Your task to perform on an android device: Do I have any events this weekend? Image 0: 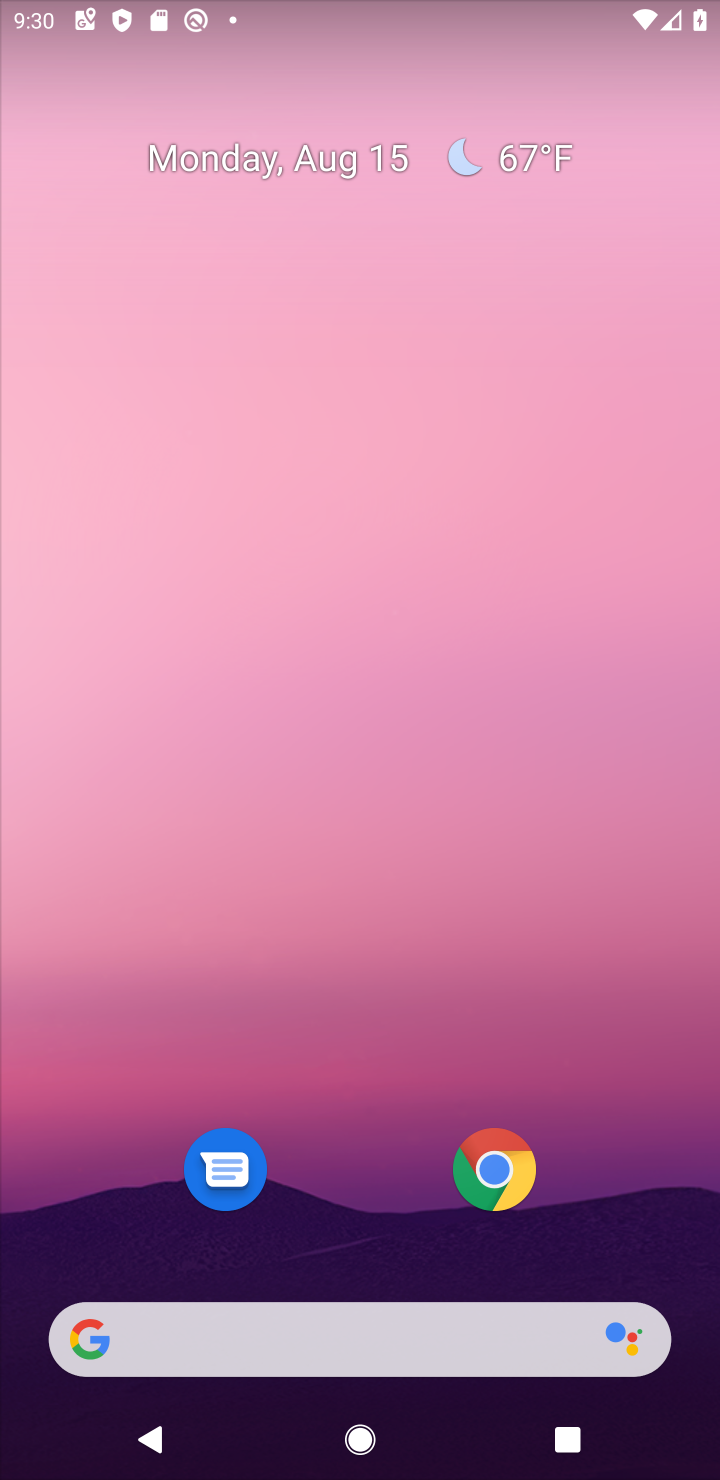
Step 0: drag from (275, 1231) to (606, 113)
Your task to perform on an android device: Do I have any events this weekend? Image 1: 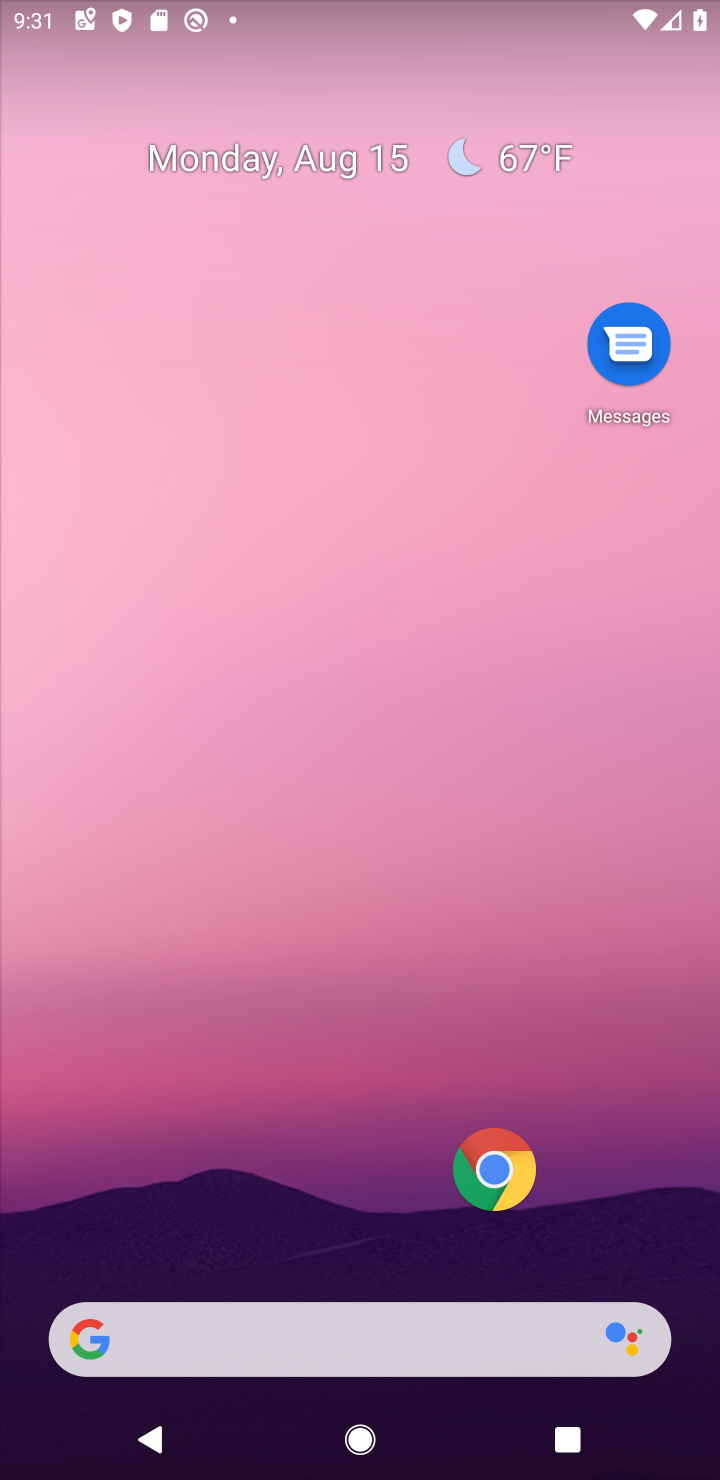
Step 1: drag from (621, 340) to (102, 1233)
Your task to perform on an android device: Do I have any events this weekend? Image 2: 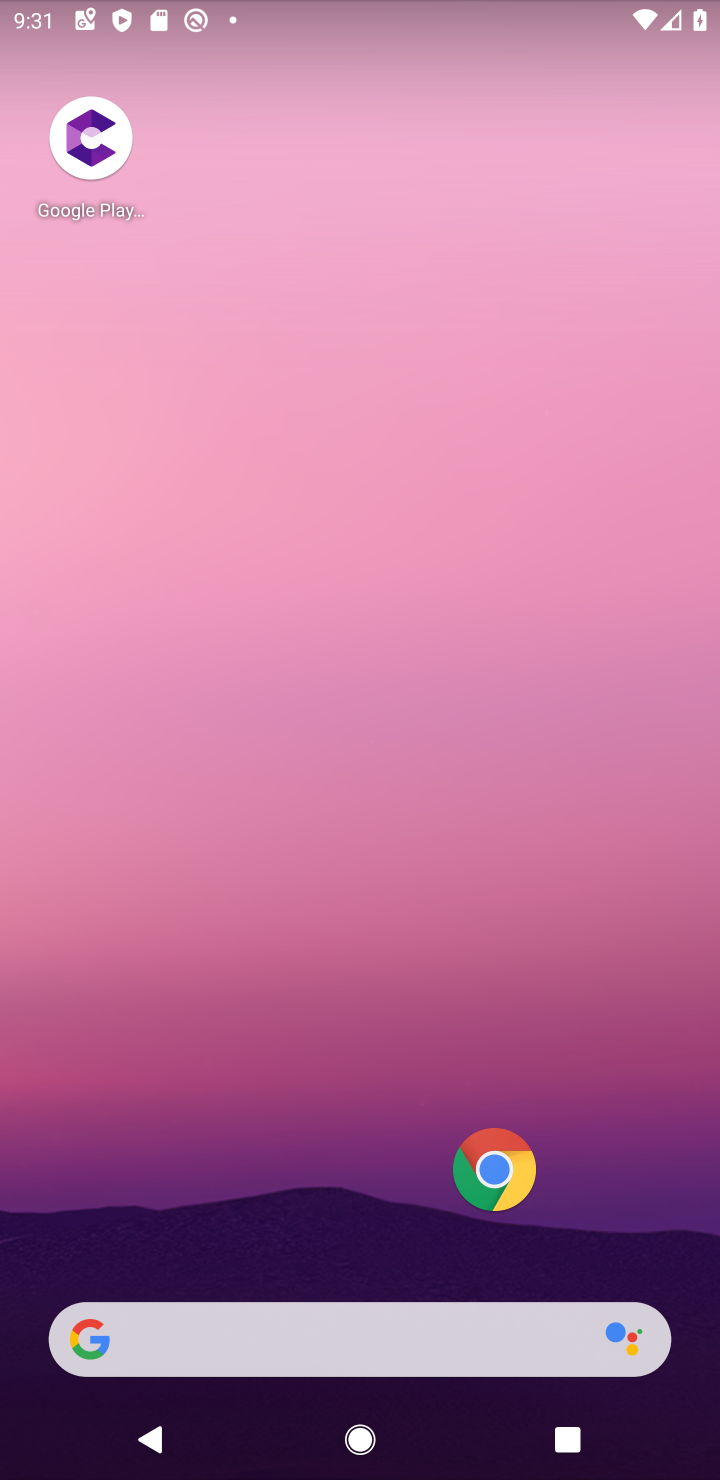
Step 2: drag from (331, 1341) to (542, 355)
Your task to perform on an android device: Do I have any events this weekend? Image 3: 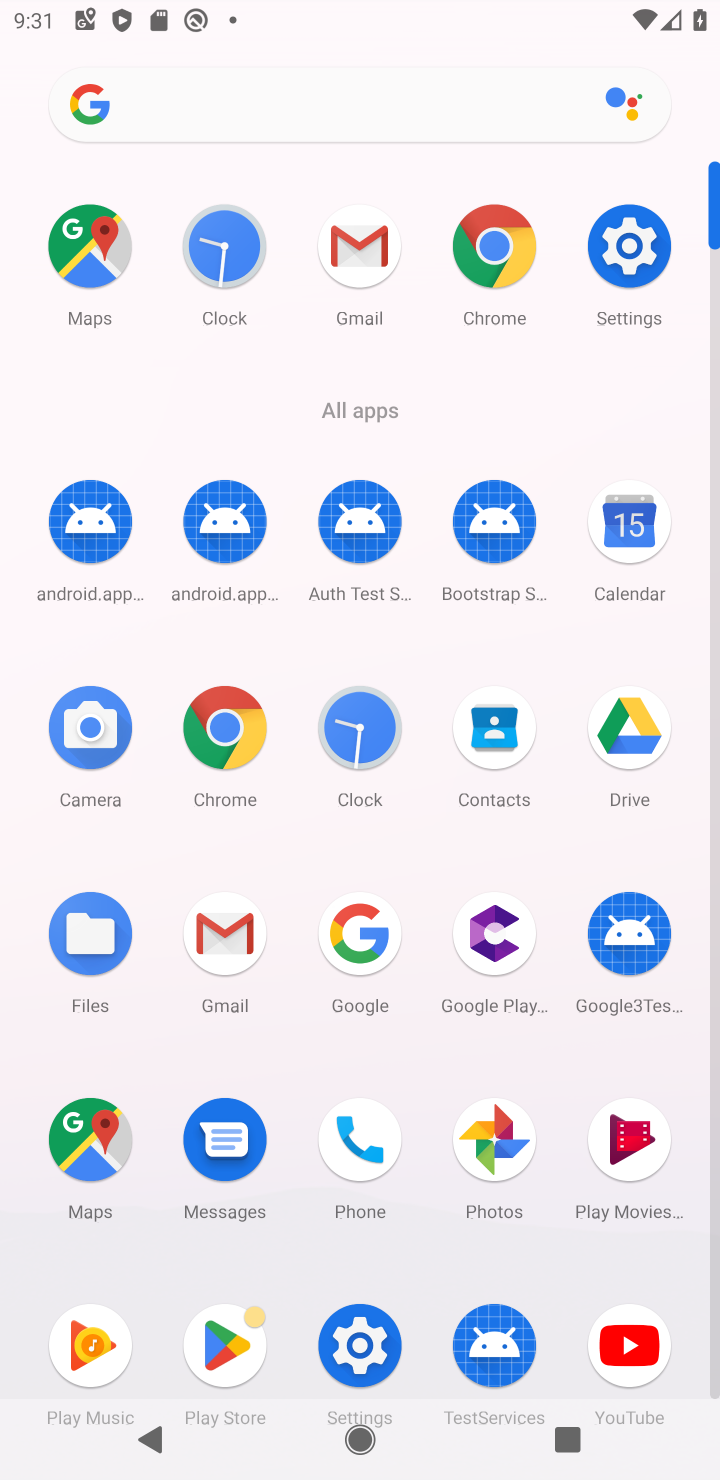
Step 3: click (621, 531)
Your task to perform on an android device: Do I have any events this weekend? Image 4: 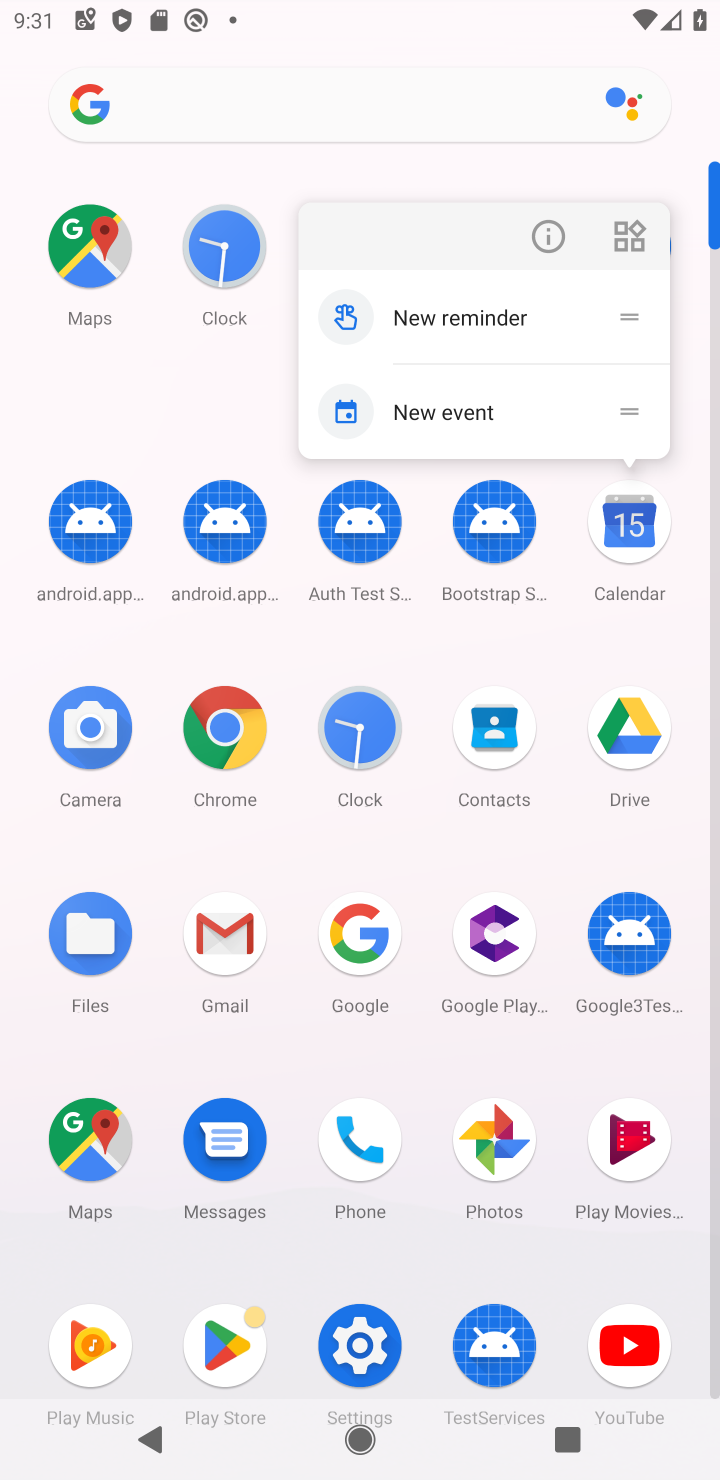
Step 4: click (621, 517)
Your task to perform on an android device: Do I have any events this weekend? Image 5: 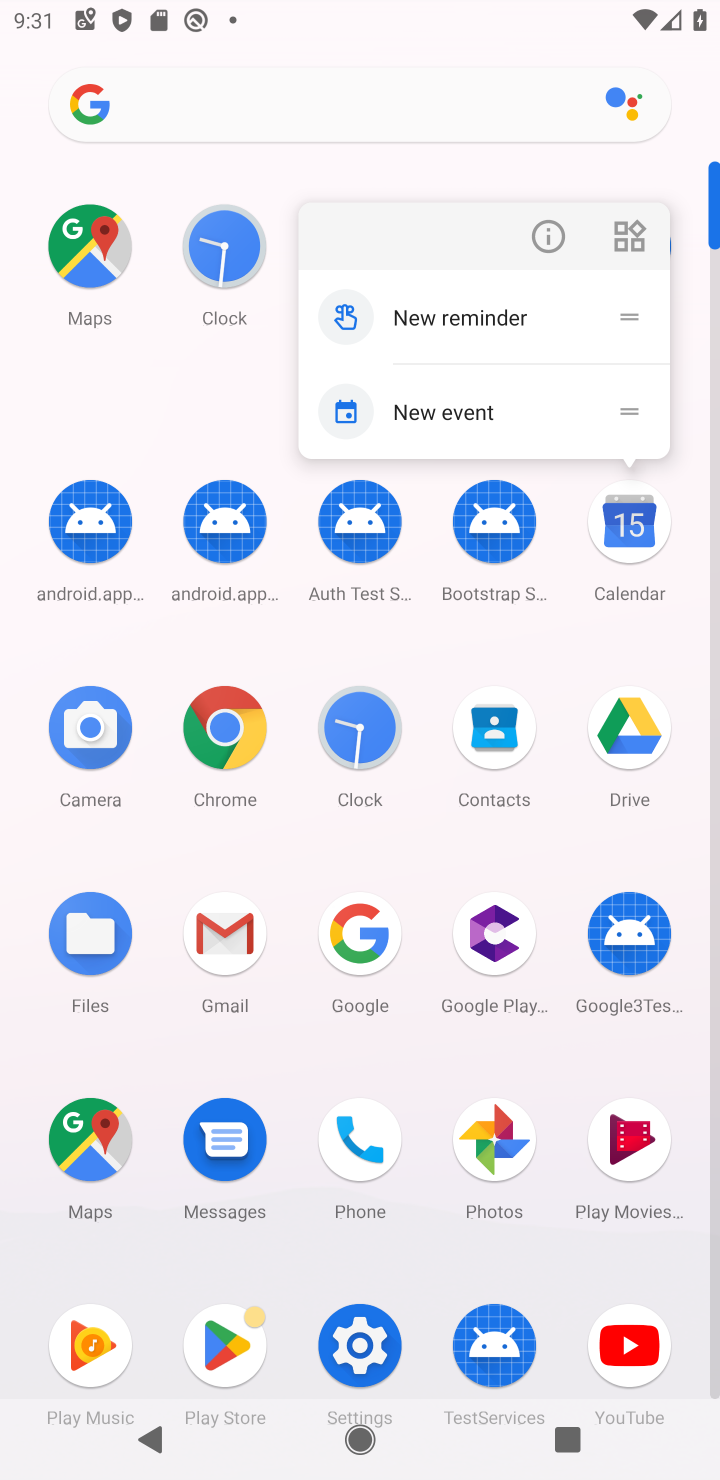
Step 5: click (621, 519)
Your task to perform on an android device: Do I have any events this weekend? Image 6: 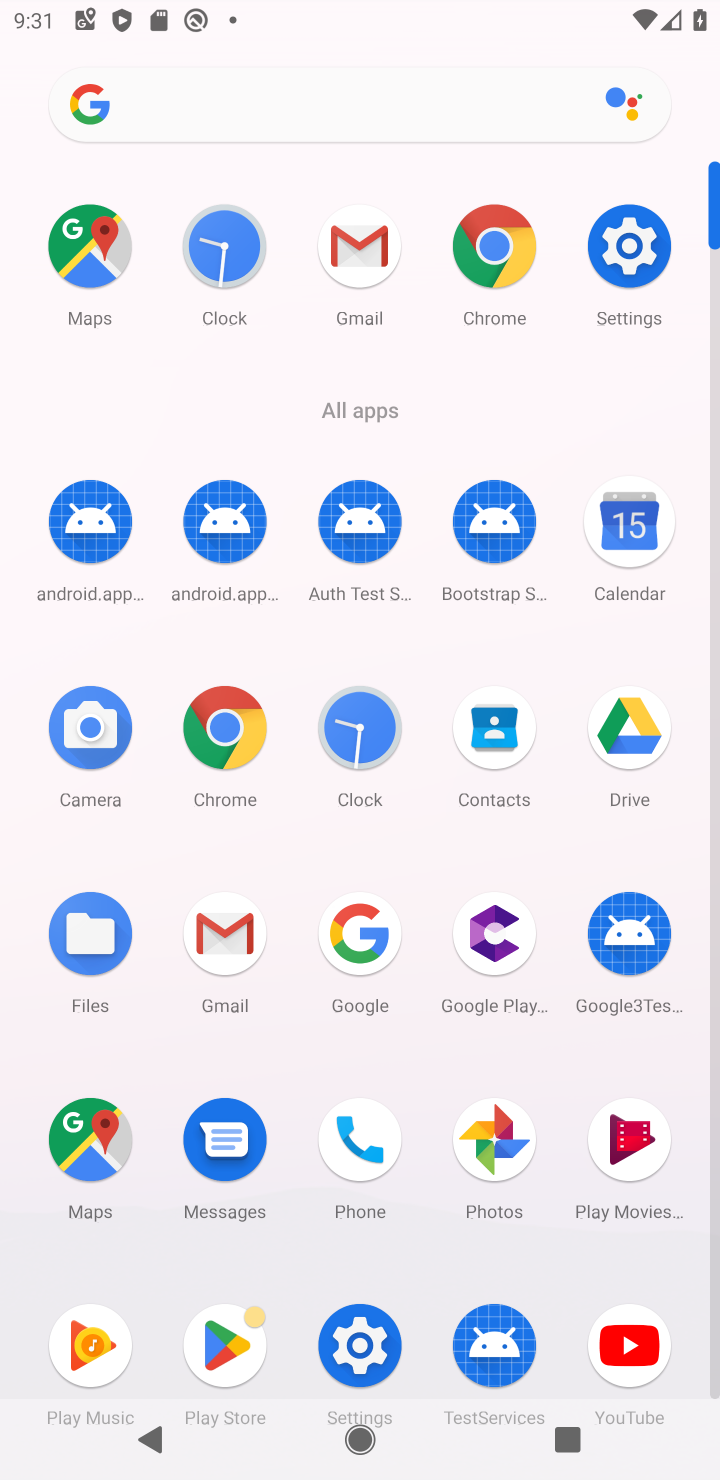
Step 6: click (621, 519)
Your task to perform on an android device: Do I have any events this weekend? Image 7: 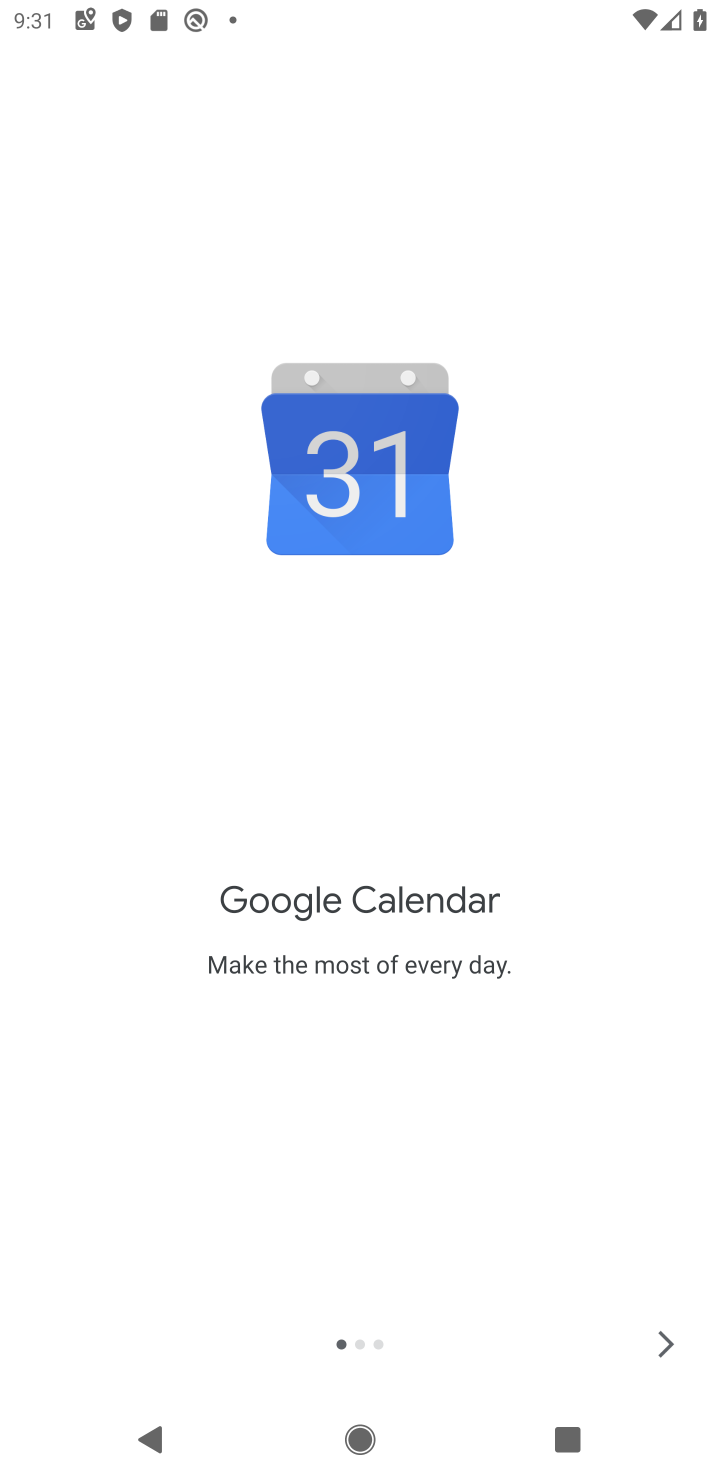
Step 7: click (663, 1330)
Your task to perform on an android device: Do I have any events this weekend? Image 8: 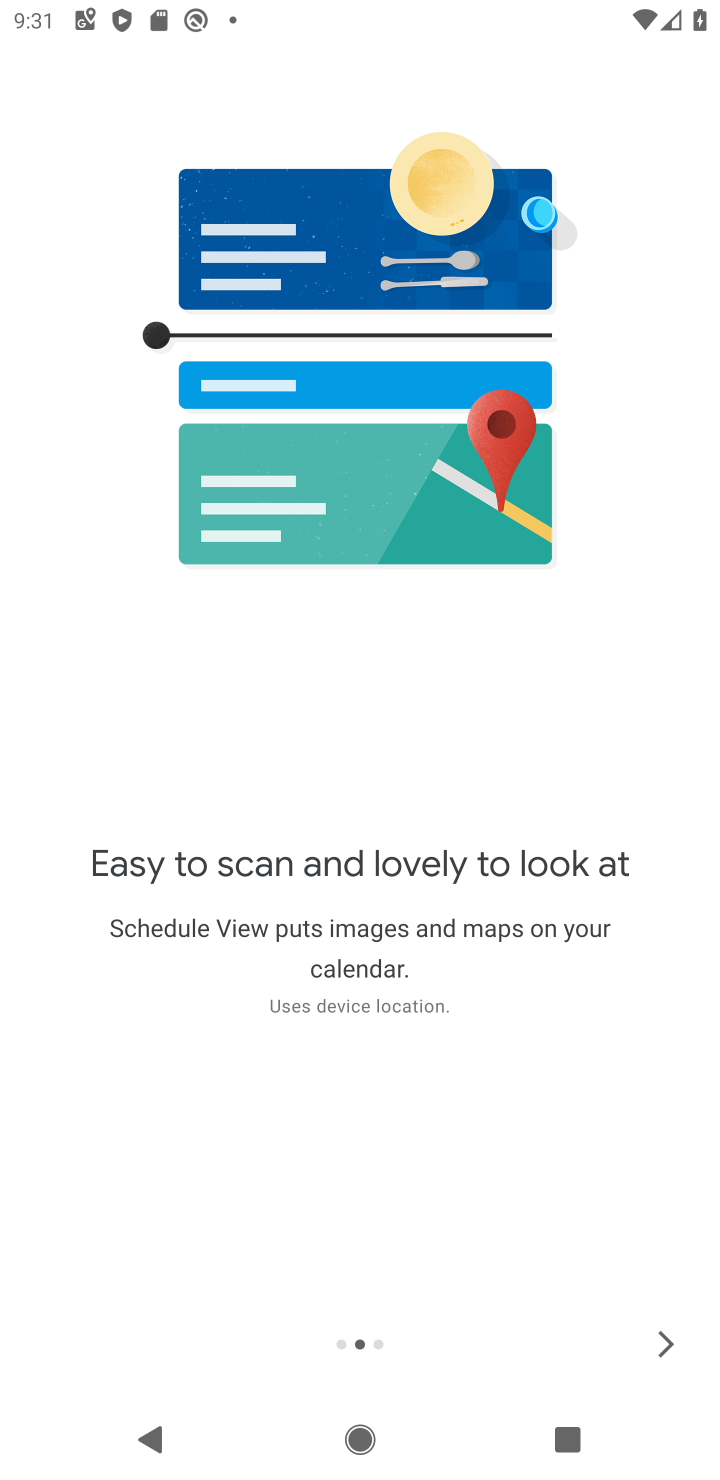
Step 8: click (663, 1328)
Your task to perform on an android device: Do I have any events this weekend? Image 9: 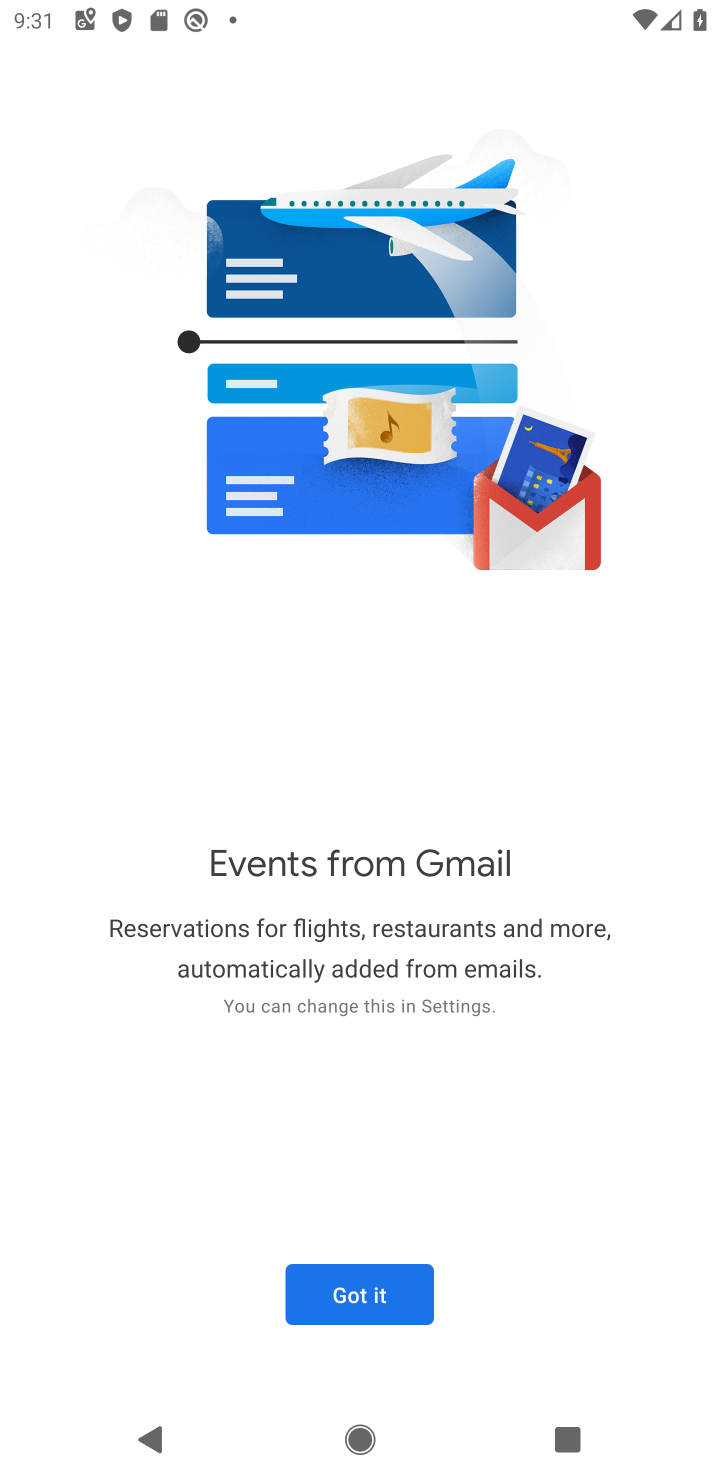
Step 9: click (361, 1293)
Your task to perform on an android device: Do I have any events this weekend? Image 10: 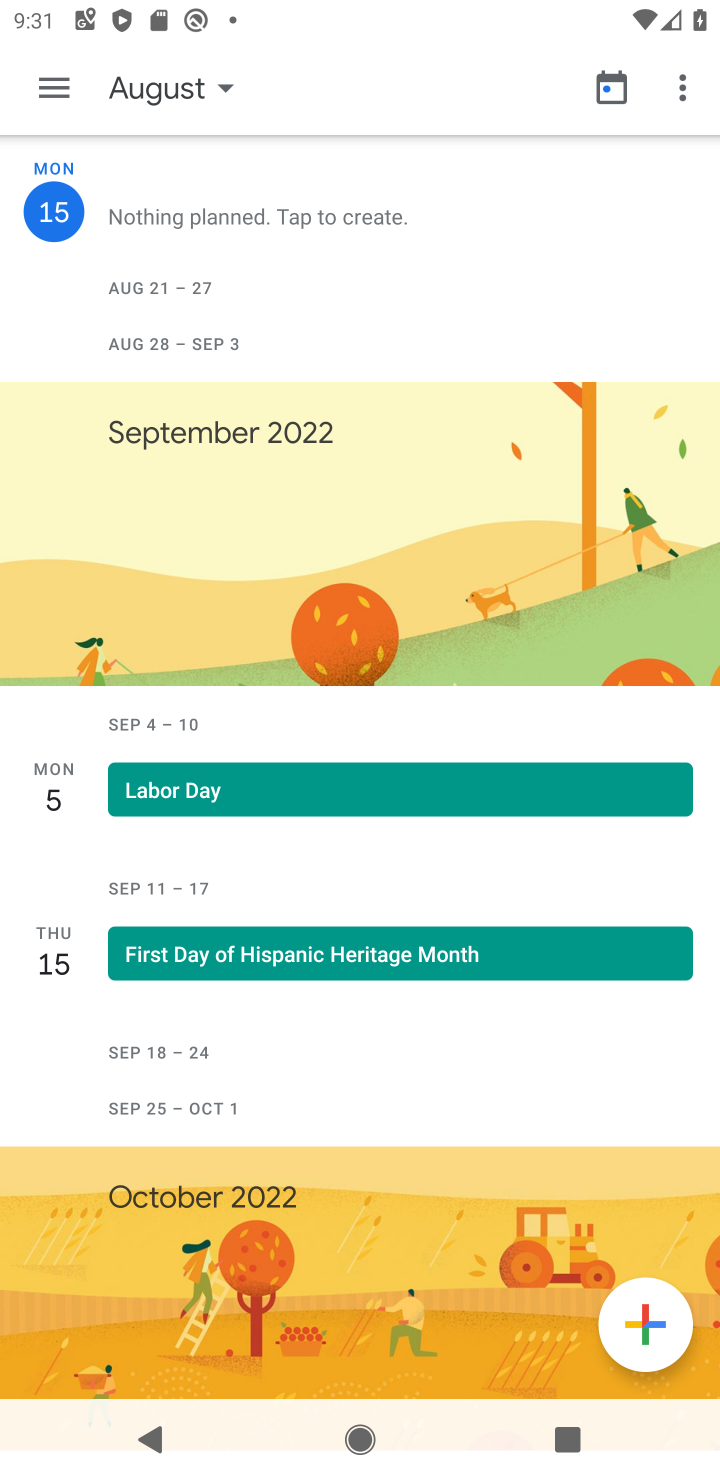
Step 10: click (163, 86)
Your task to perform on an android device: Do I have any events this weekend? Image 11: 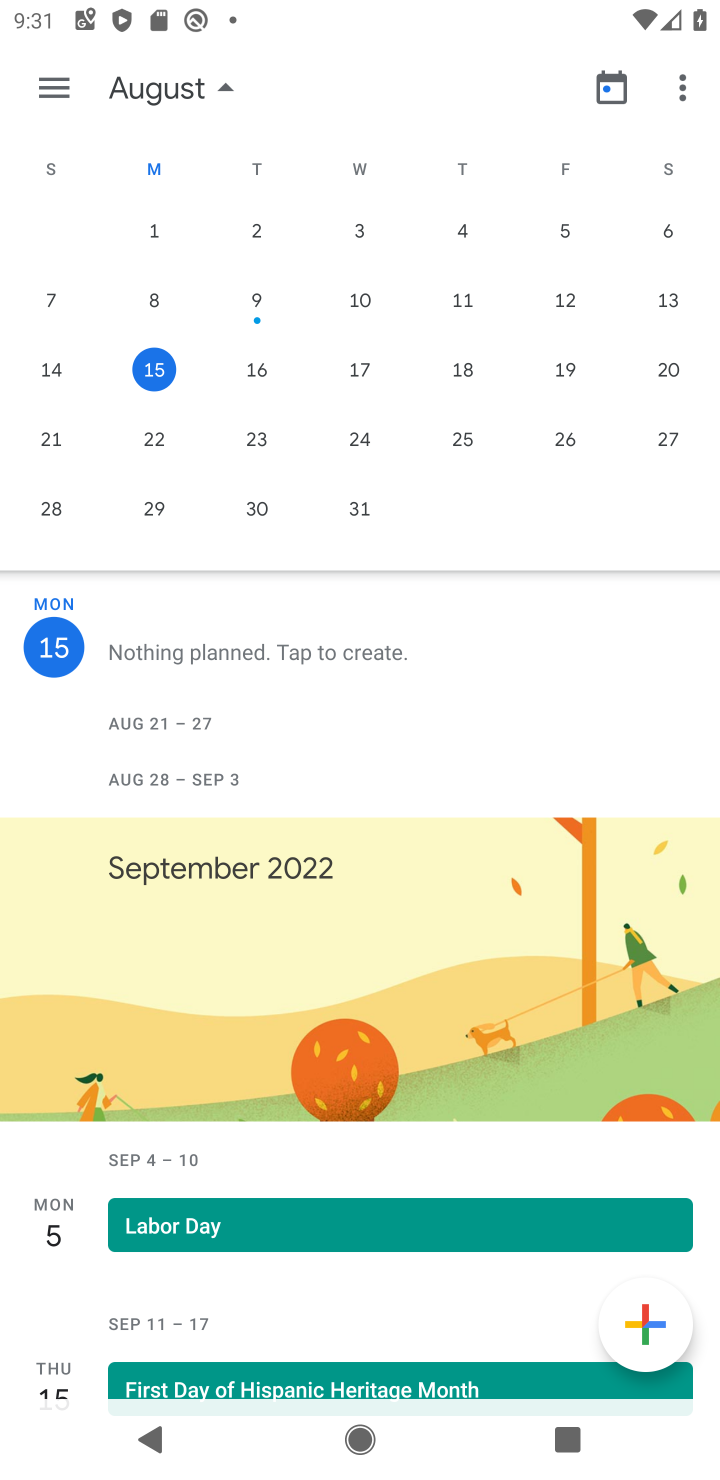
Step 11: click (667, 373)
Your task to perform on an android device: Do I have any events this weekend? Image 12: 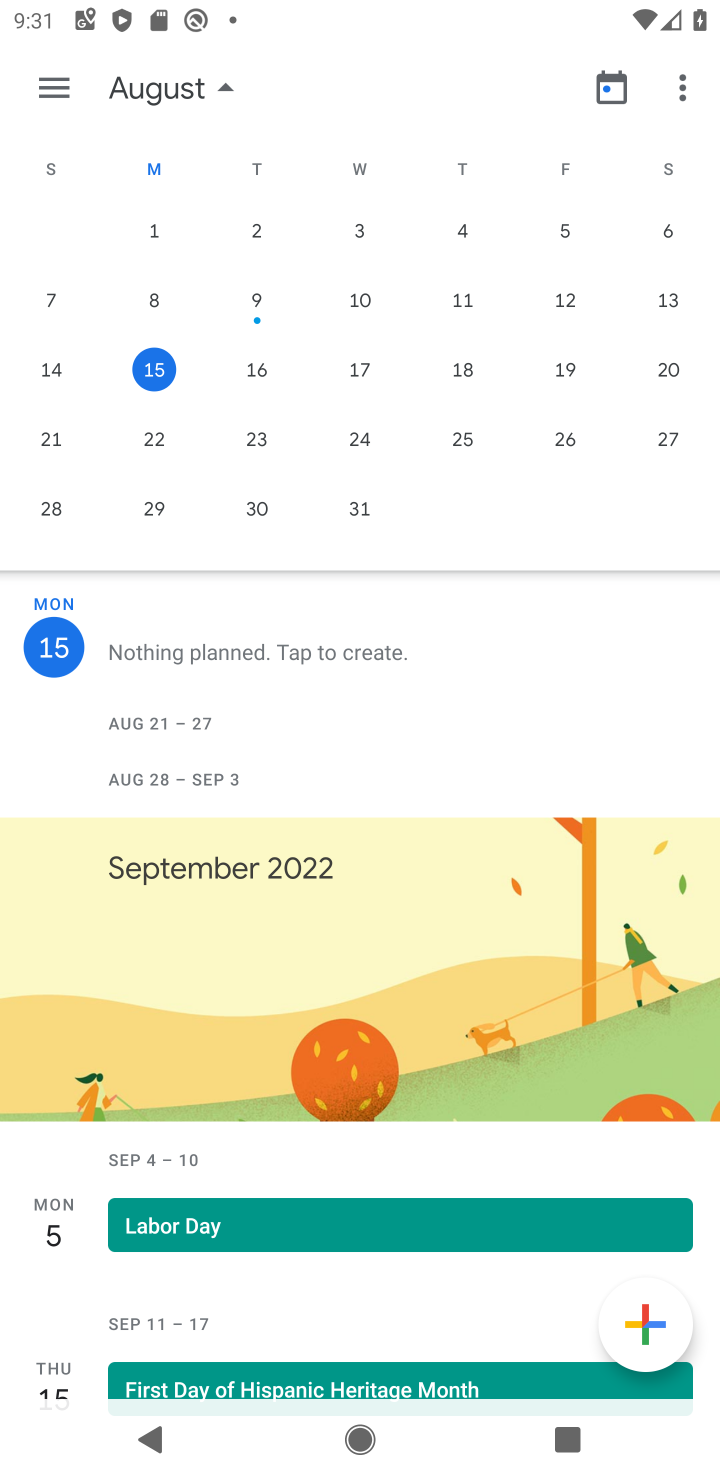
Step 12: click (671, 369)
Your task to perform on an android device: Do I have any events this weekend? Image 13: 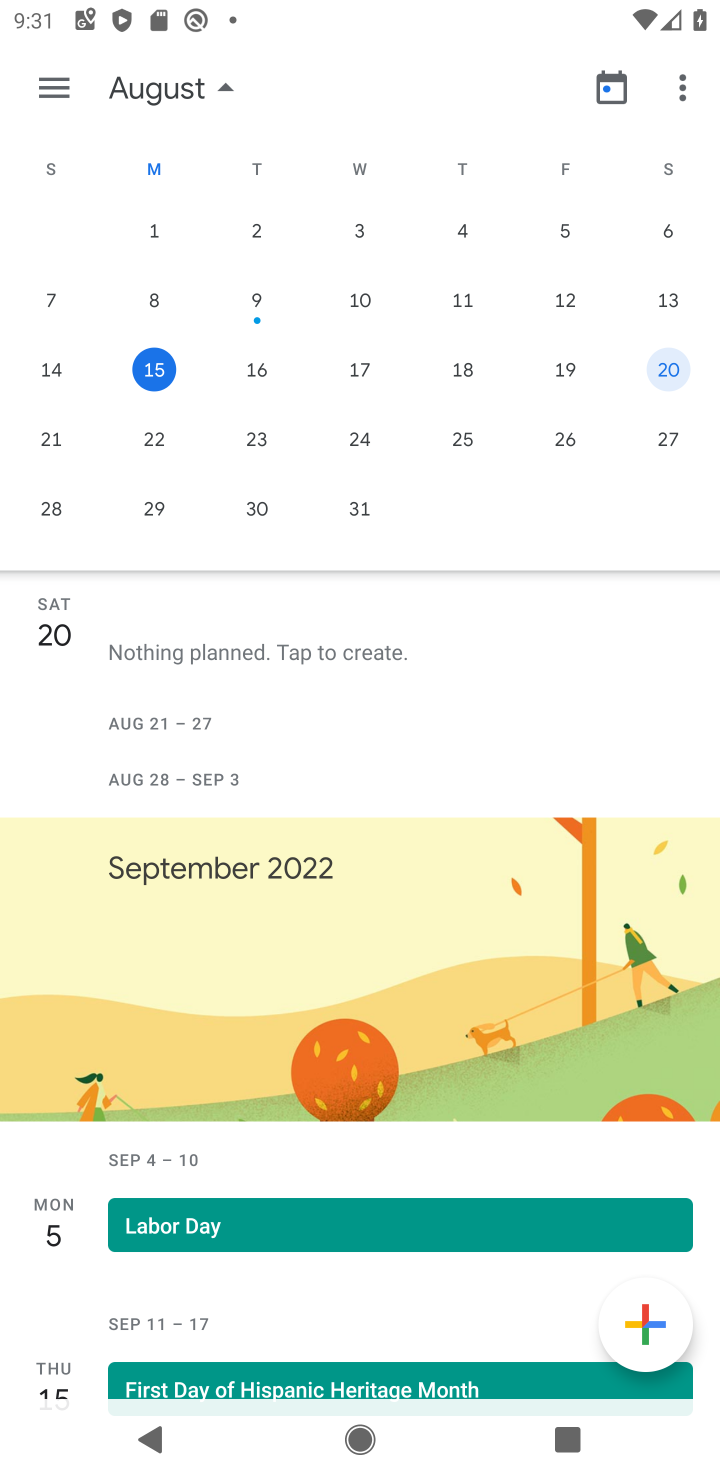
Step 13: click (55, 81)
Your task to perform on an android device: Do I have any events this weekend? Image 14: 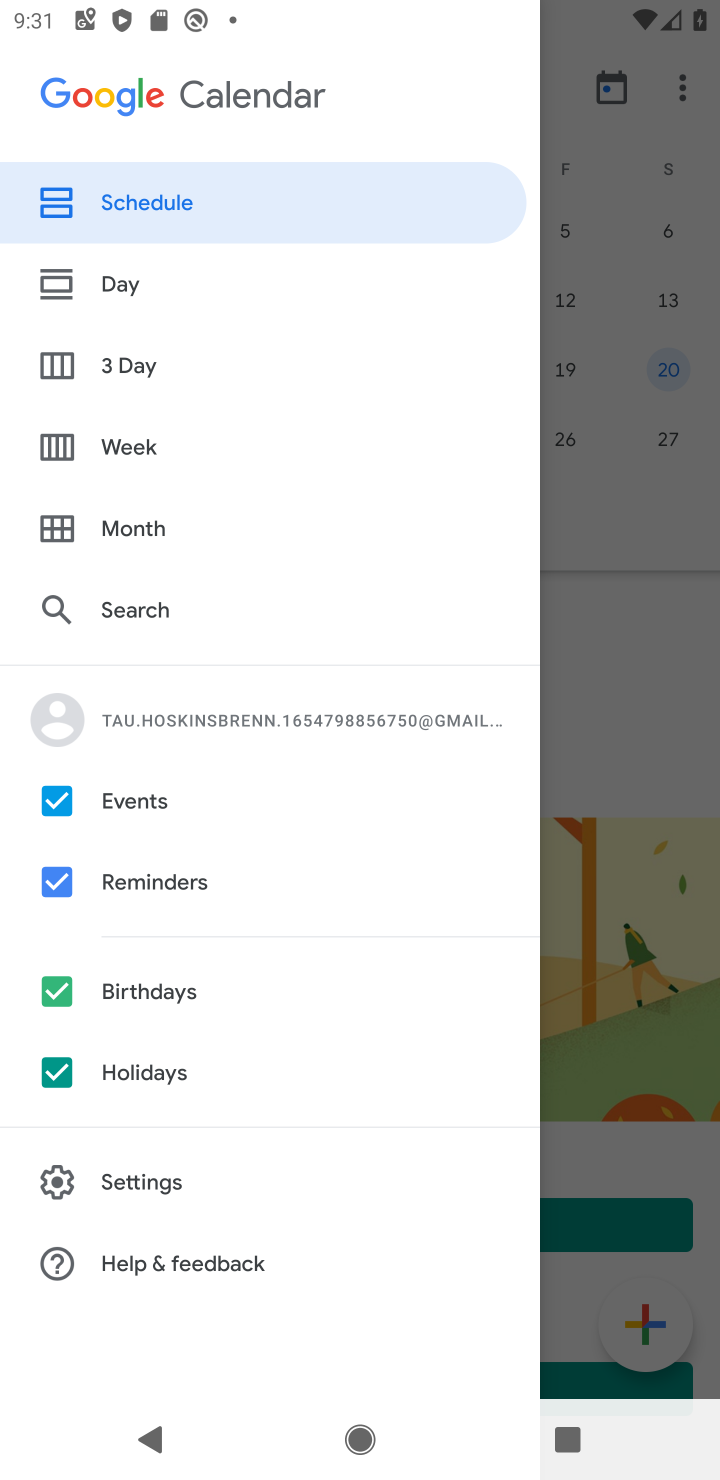
Step 14: click (136, 277)
Your task to perform on an android device: Do I have any events this weekend? Image 15: 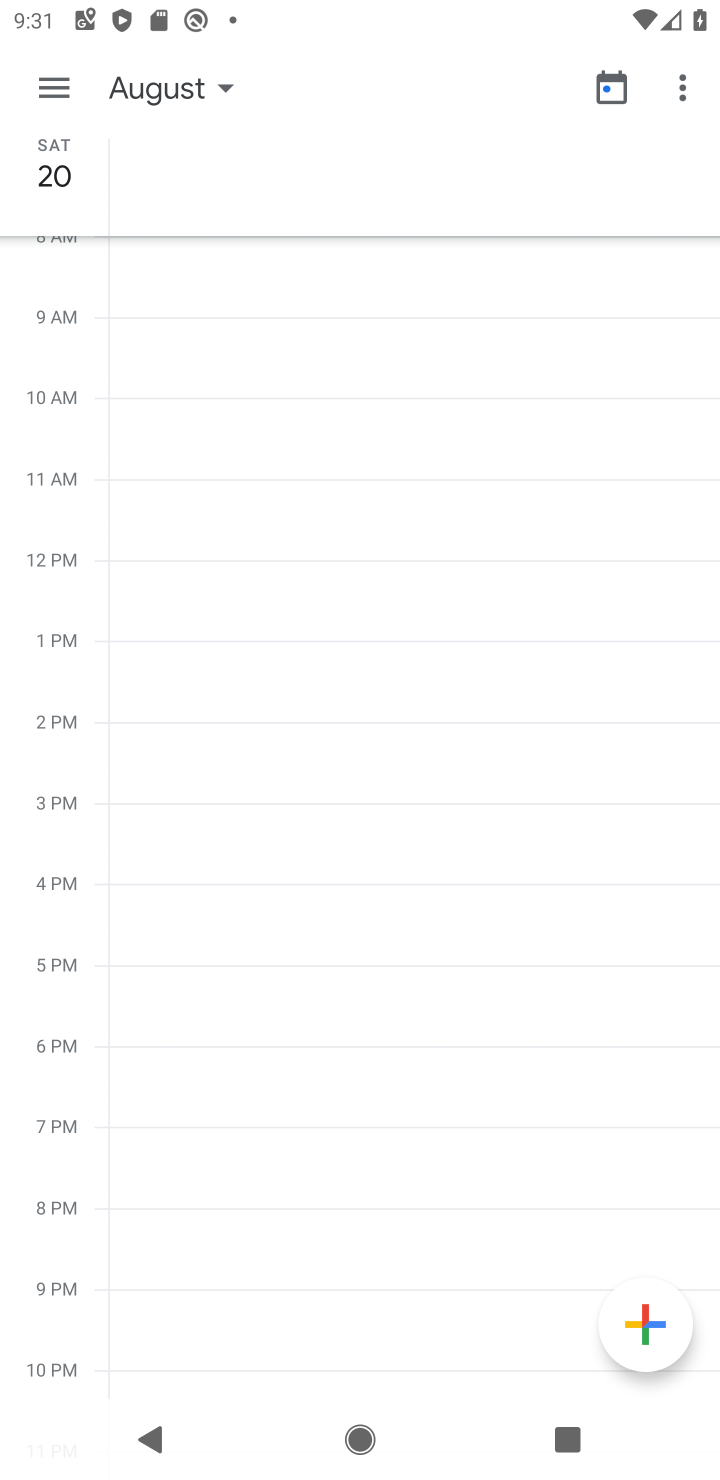
Step 15: click (48, 88)
Your task to perform on an android device: Do I have any events this weekend? Image 16: 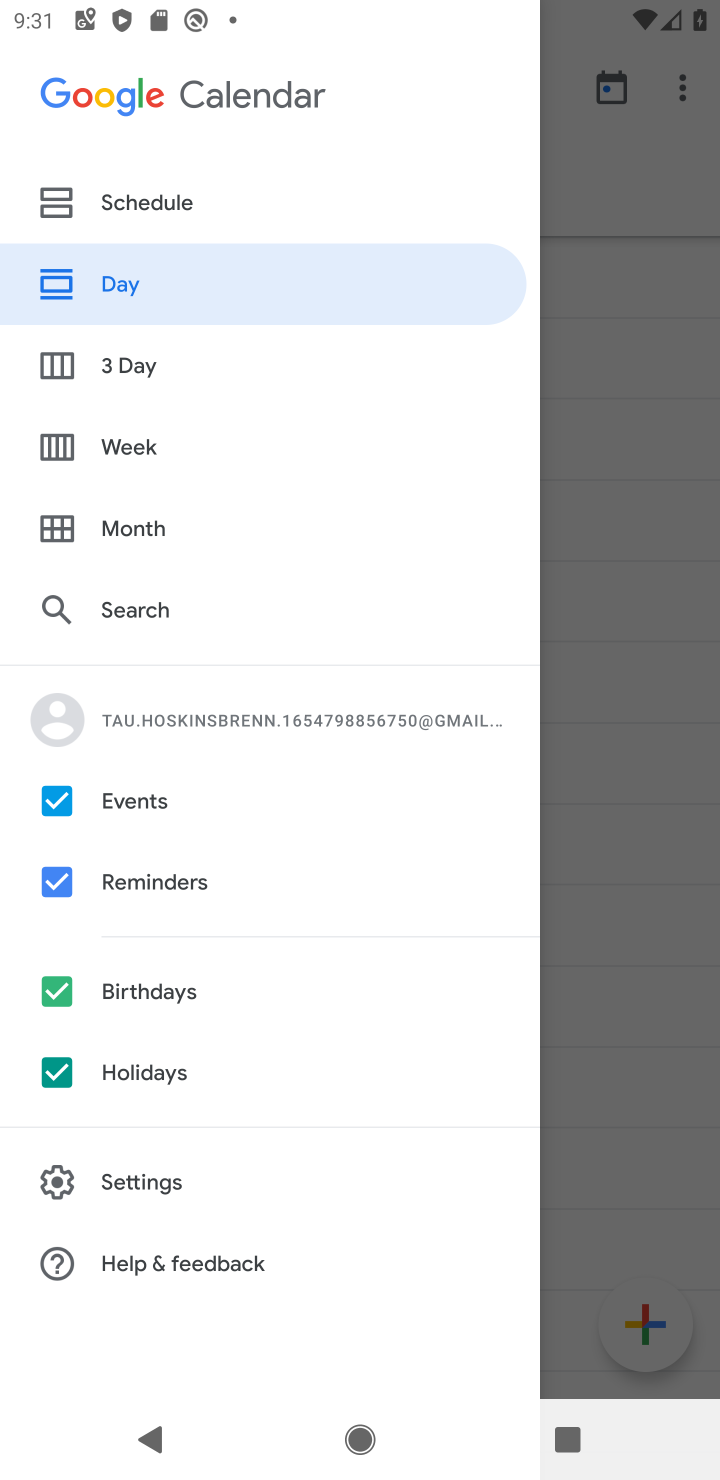
Step 16: click (125, 201)
Your task to perform on an android device: Do I have any events this weekend? Image 17: 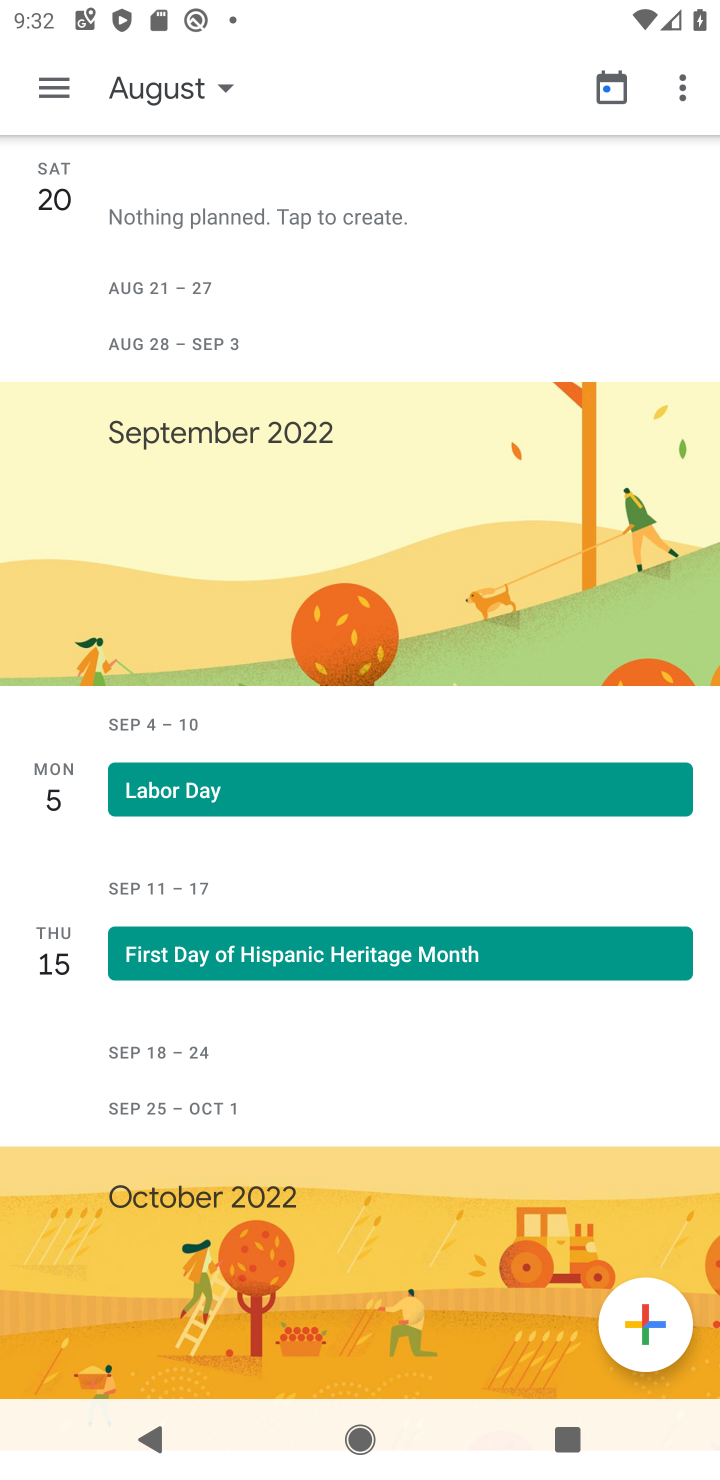
Step 17: task complete